Your task to perform on an android device: turn on the 12-hour format for clock Image 0: 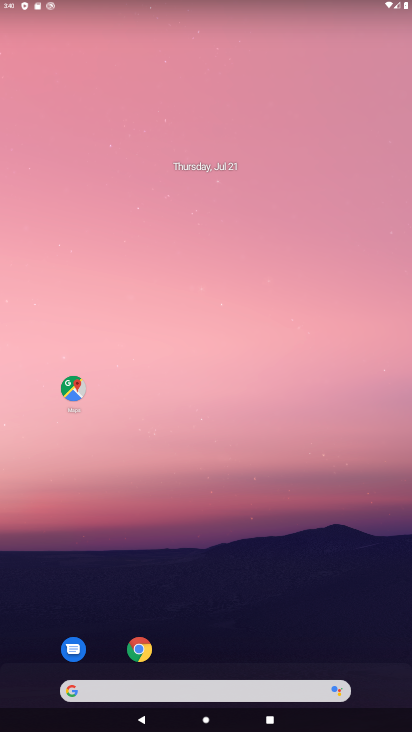
Step 0: drag from (222, 656) to (194, 214)
Your task to perform on an android device: turn on the 12-hour format for clock Image 1: 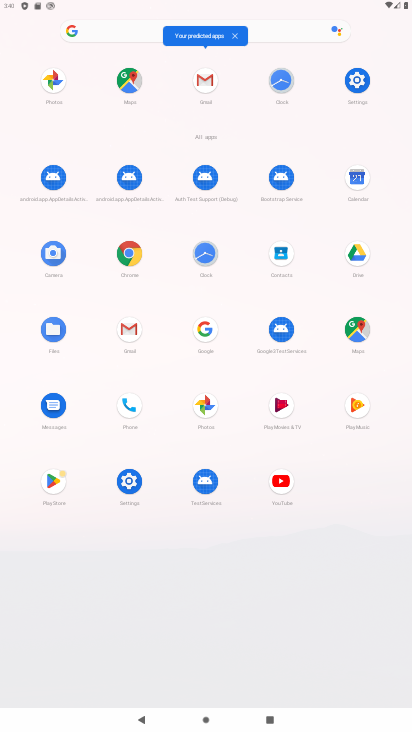
Step 1: click (210, 258)
Your task to perform on an android device: turn on the 12-hour format for clock Image 2: 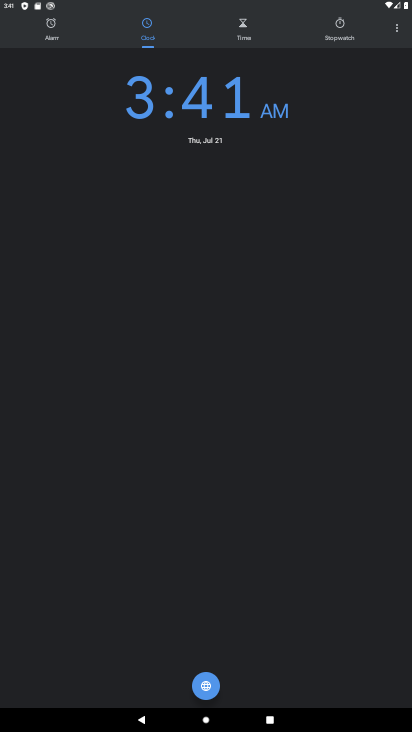
Step 2: click (393, 34)
Your task to perform on an android device: turn on the 12-hour format for clock Image 3: 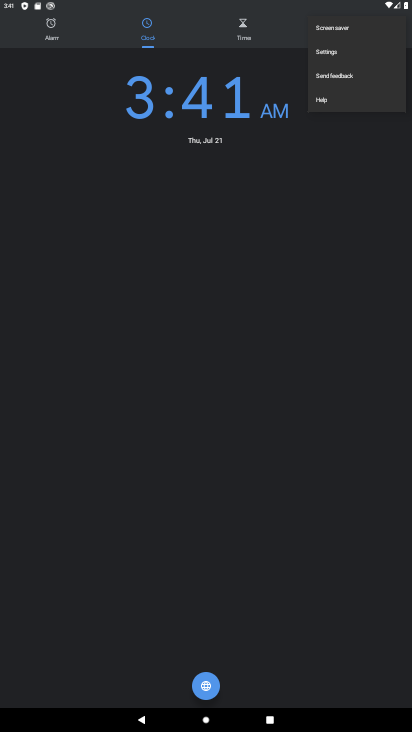
Step 3: click (334, 53)
Your task to perform on an android device: turn on the 12-hour format for clock Image 4: 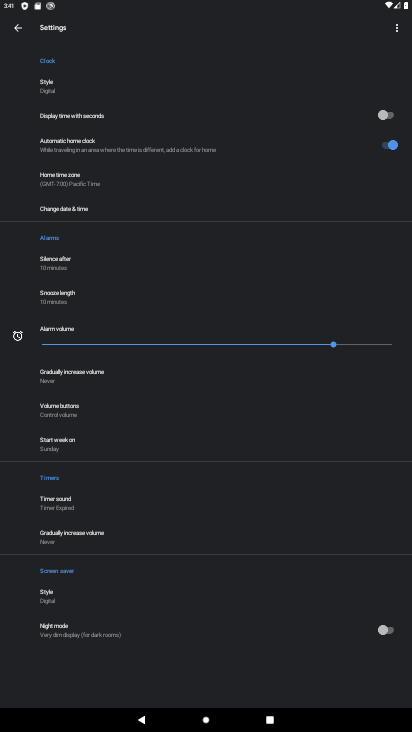
Step 4: click (67, 211)
Your task to perform on an android device: turn on the 12-hour format for clock Image 5: 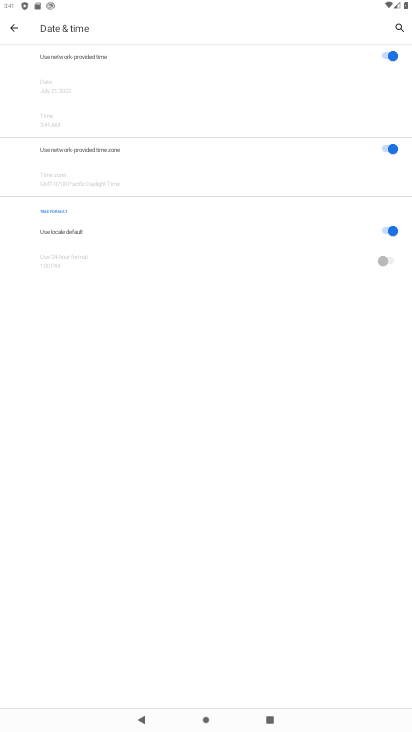
Step 5: task complete